Your task to perform on an android device: Is it going to rain this weekend? Image 0: 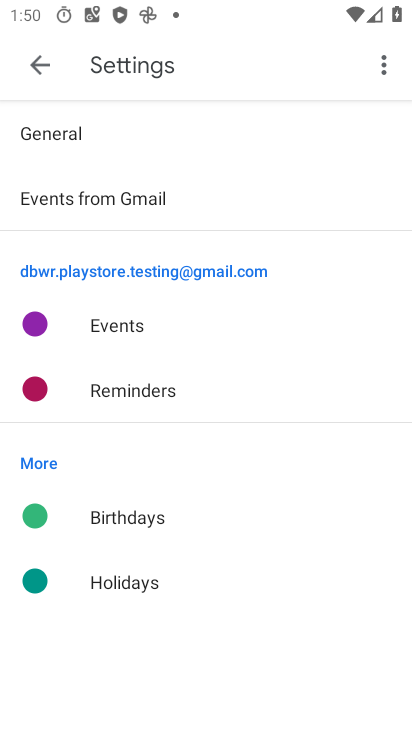
Step 0: press home button
Your task to perform on an android device: Is it going to rain this weekend? Image 1: 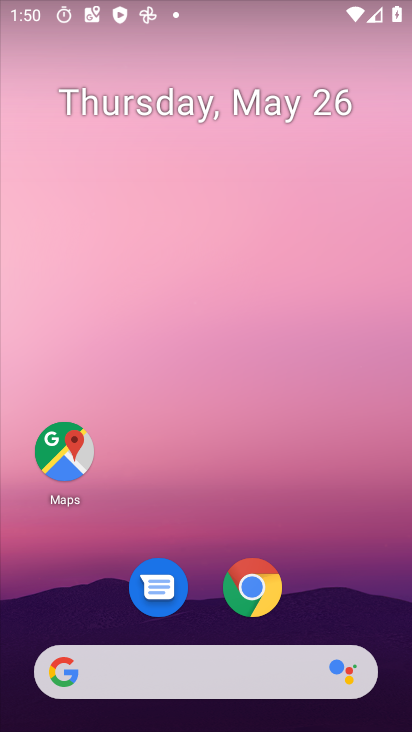
Step 1: click (207, 673)
Your task to perform on an android device: Is it going to rain this weekend? Image 2: 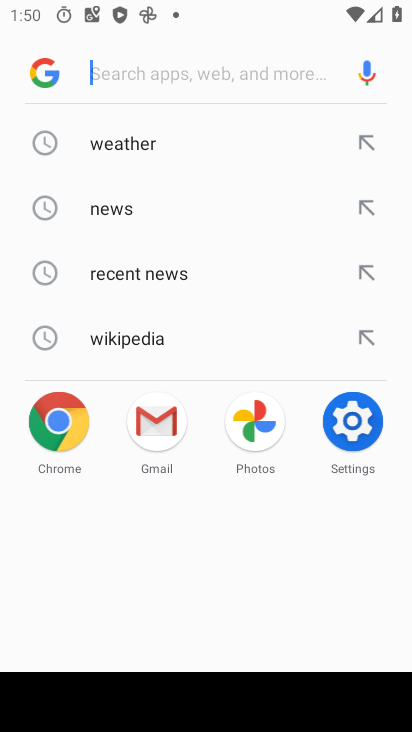
Step 2: click (153, 146)
Your task to perform on an android device: Is it going to rain this weekend? Image 3: 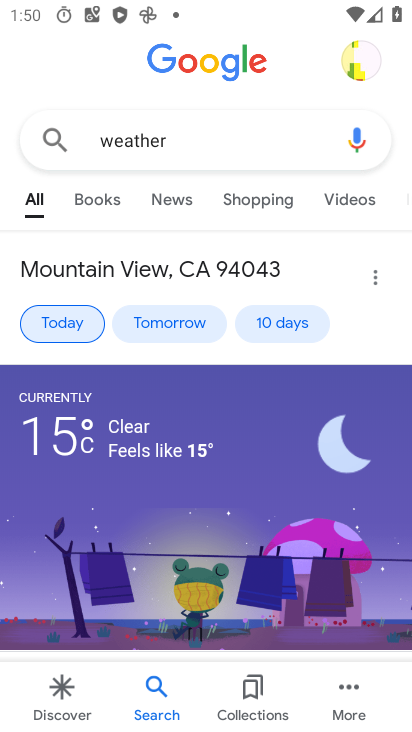
Step 3: click (272, 322)
Your task to perform on an android device: Is it going to rain this weekend? Image 4: 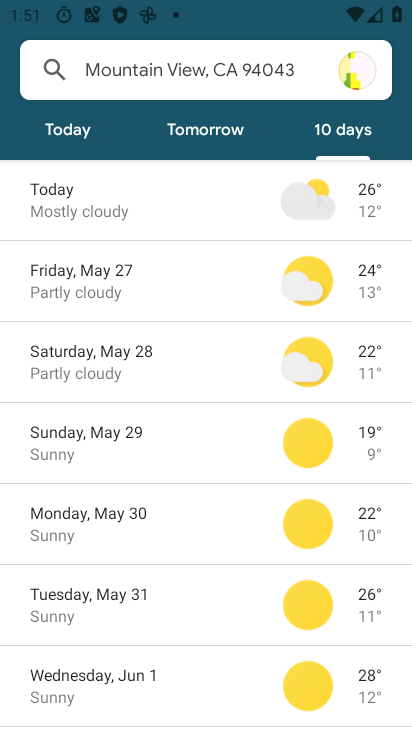
Step 4: task complete